Your task to perform on an android device: Open display settings Image 0: 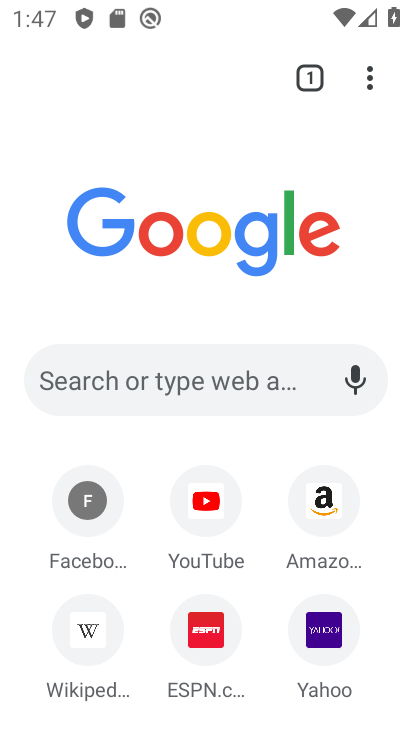
Step 0: press home button
Your task to perform on an android device: Open display settings Image 1: 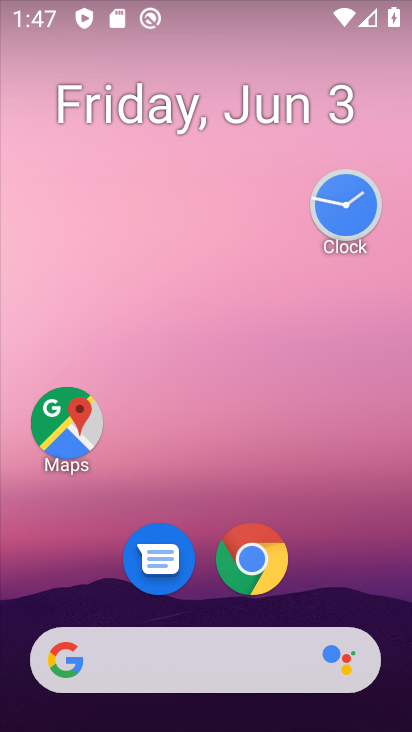
Step 1: drag from (357, 549) to (345, 254)
Your task to perform on an android device: Open display settings Image 2: 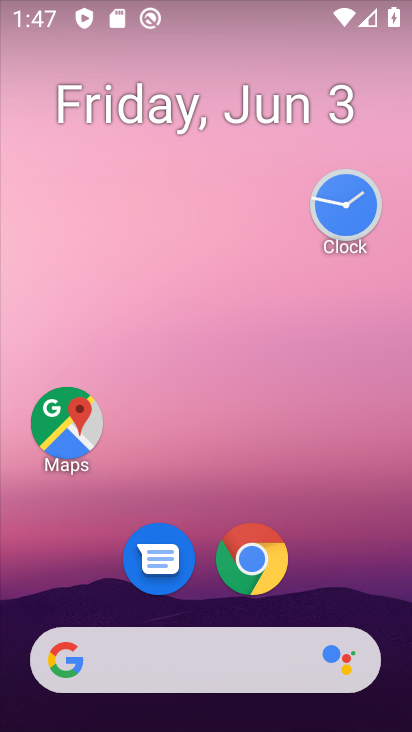
Step 2: drag from (341, 578) to (339, 214)
Your task to perform on an android device: Open display settings Image 3: 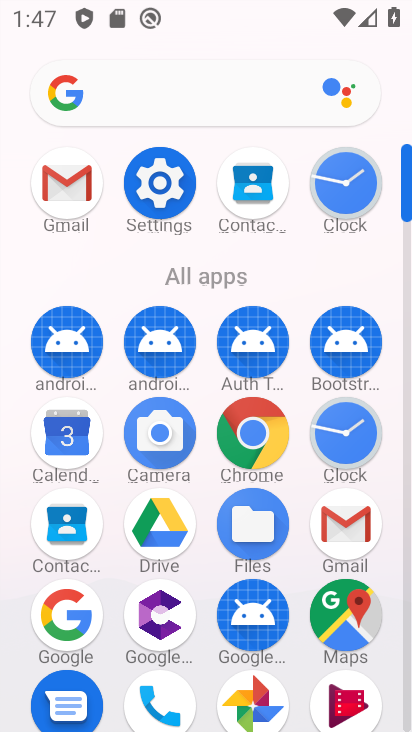
Step 3: click (172, 195)
Your task to perform on an android device: Open display settings Image 4: 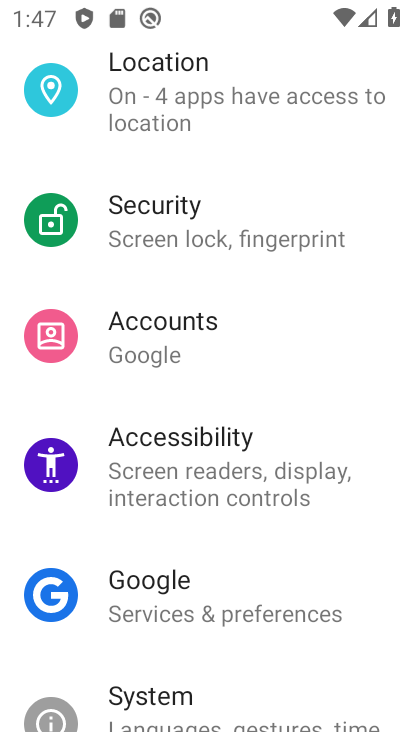
Step 4: drag from (278, 177) to (184, 550)
Your task to perform on an android device: Open display settings Image 5: 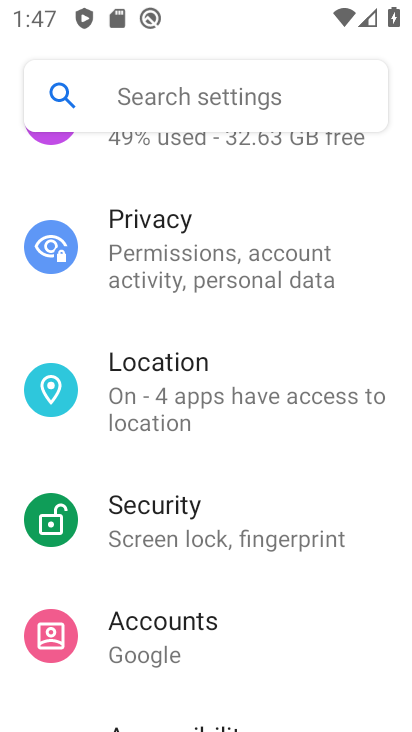
Step 5: drag from (254, 186) to (136, 680)
Your task to perform on an android device: Open display settings Image 6: 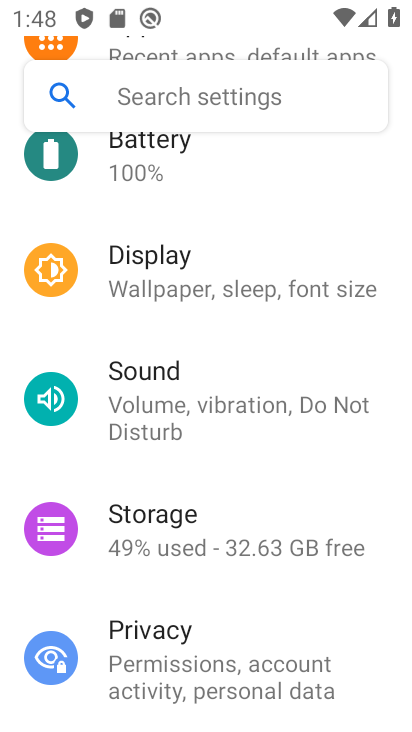
Step 6: click (292, 293)
Your task to perform on an android device: Open display settings Image 7: 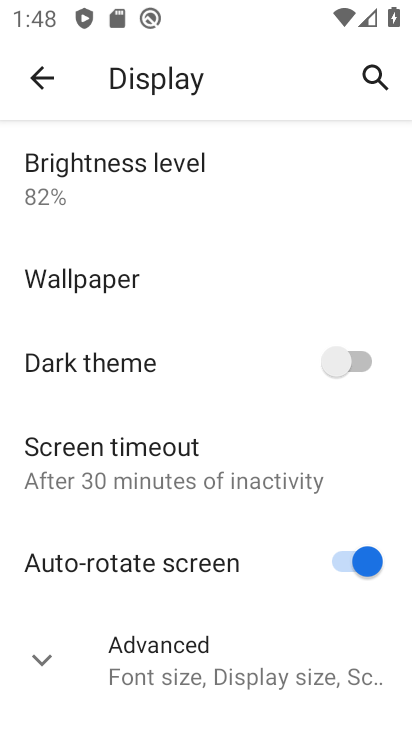
Step 7: task complete